Your task to perform on an android device: add a contact in the contacts app Image 0: 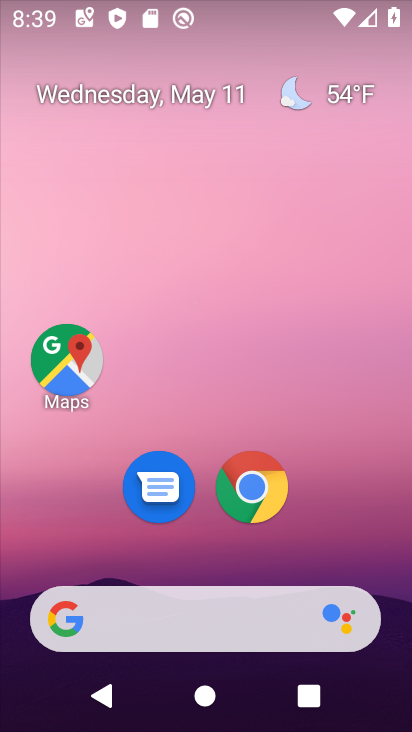
Step 0: drag from (65, 564) to (186, 102)
Your task to perform on an android device: add a contact in the contacts app Image 1: 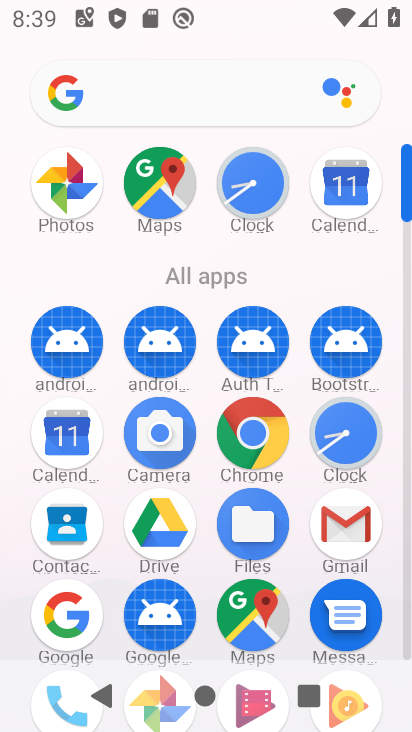
Step 1: drag from (99, 622) to (168, 431)
Your task to perform on an android device: add a contact in the contacts app Image 2: 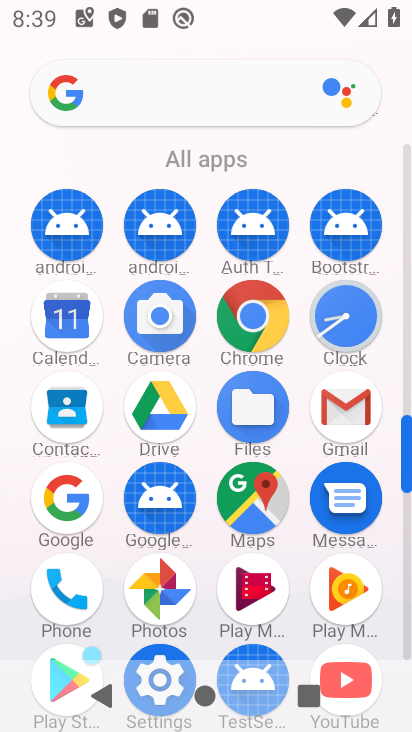
Step 2: click (63, 408)
Your task to perform on an android device: add a contact in the contacts app Image 3: 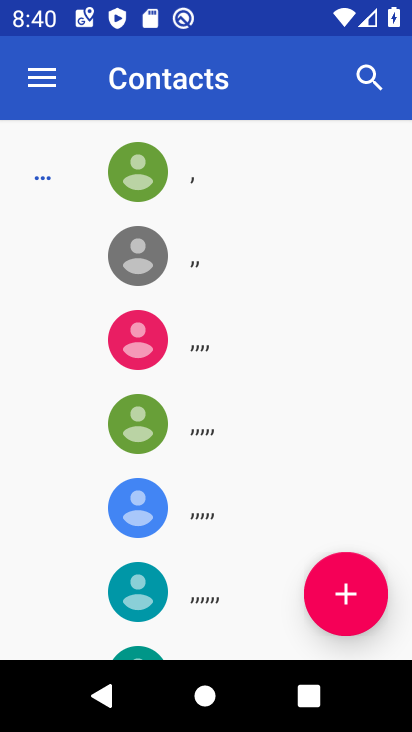
Step 3: click (332, 601)
Your task to perform on an android device: add a contact in the contacts app Image 4: 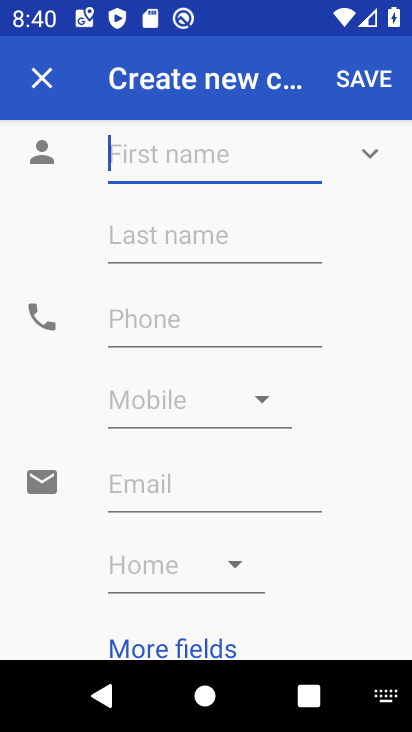
Step 4: type "qaqaqaqa"
Your task to perform on an android device: add a contact in the contacts app Image 5: 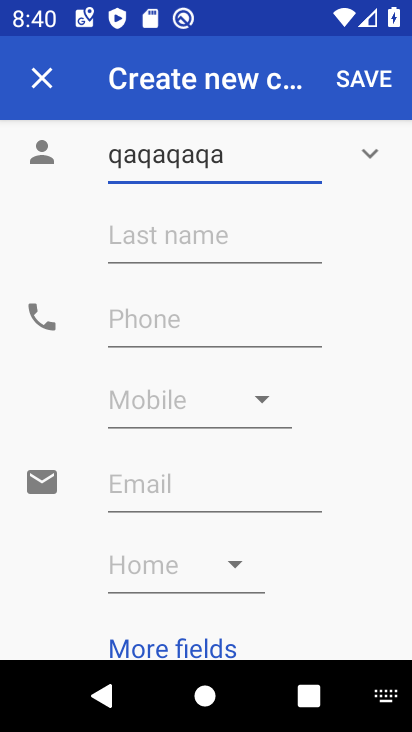
Step 5: click (223, 328)
Your task to perform on an android device: add a contact in the contacts app Image 6: 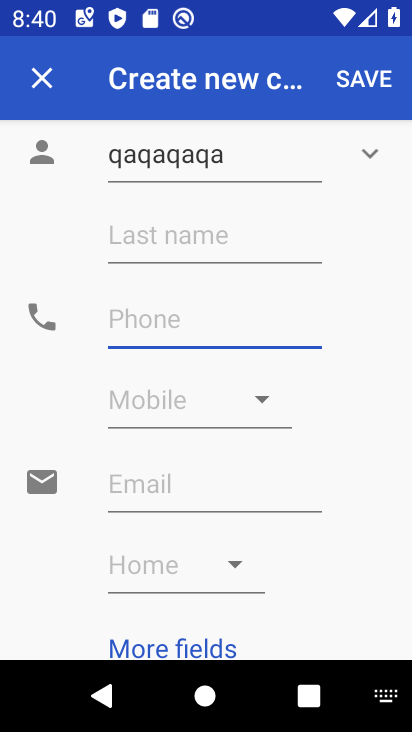
Step 6: type "2434212112"
Your task to perform on an android device: add a contact in the contacts app Image 7: 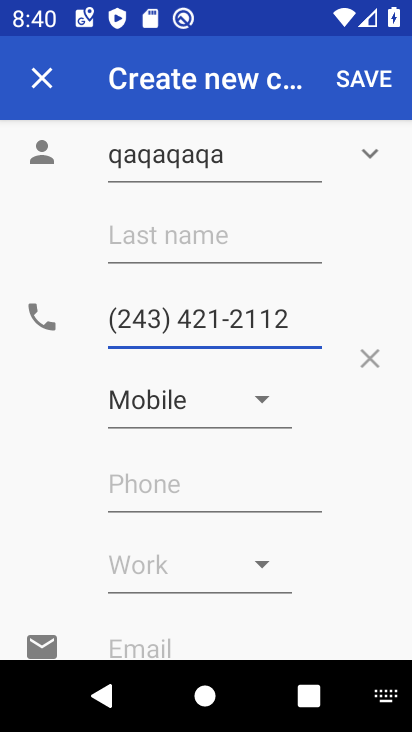
Step 7: click (353, 77)
Your task to perform on an android device: add a contact in the contacts app Image 8: 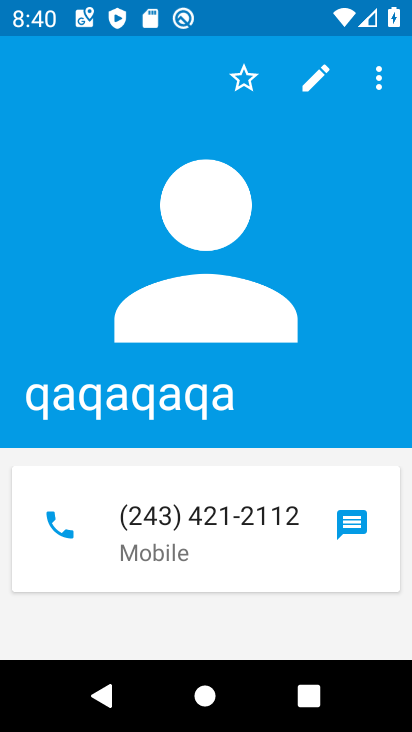
Step 8: task complete